Your task to perform on an android device: Search for apple airpods pro on bestbuy.com, select the first entry, and add it to the cart. Image 0: 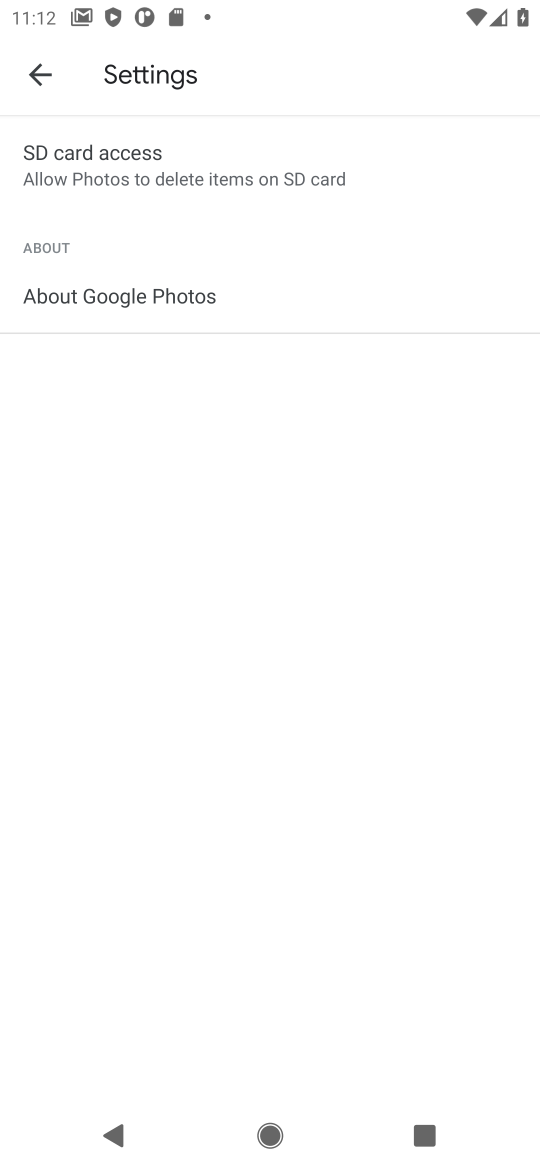
Step 0: press home button
Your task to perform on an android device: Search for apple airpods pro on bestbuy.com, select the first entry, and add it to the cart. Image 1: 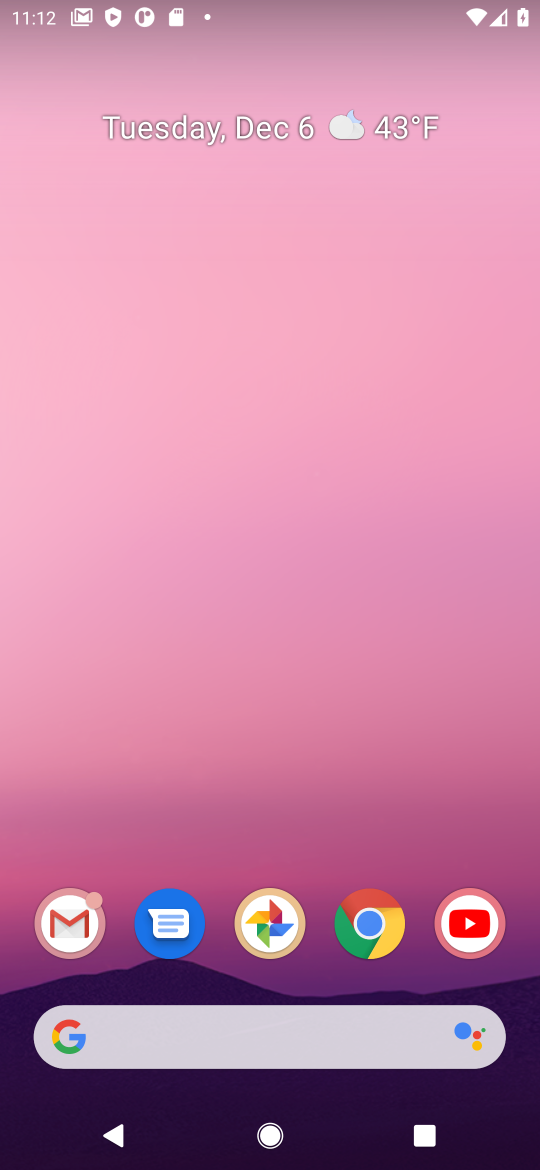
Step 1: click (366, 904)
Your task to perform on an android device: Search for apple airpods pro on bestbuy.com, select the first entry, and add it to the cart. Image 2: 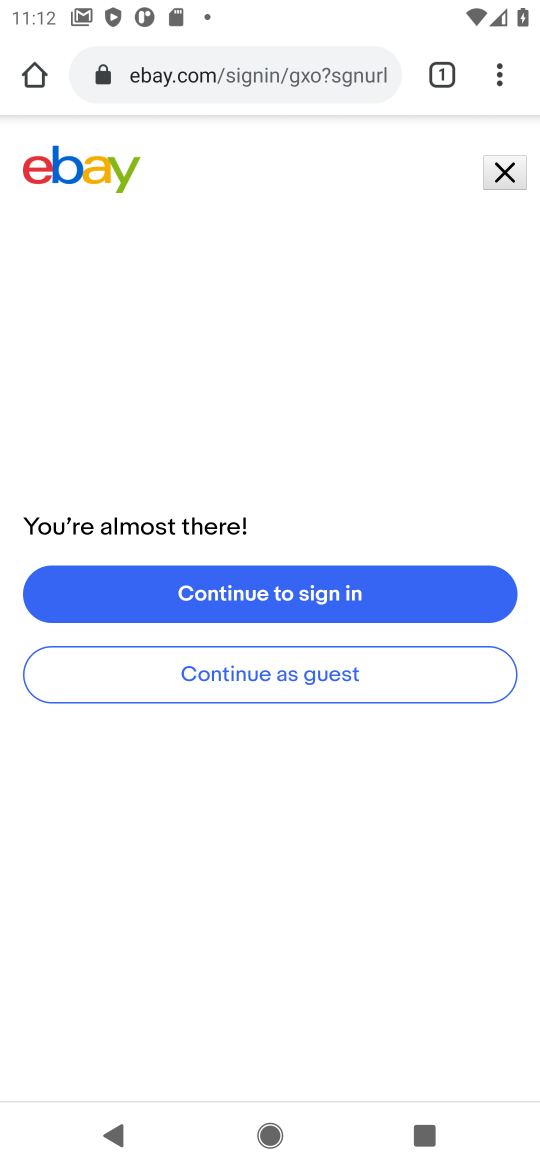
Step 2: click (230, 78)
Your task to perform on an android device: Search for apple airpods pro on bestbuy.com, select the first entry, and add it to the cart. Image 3: 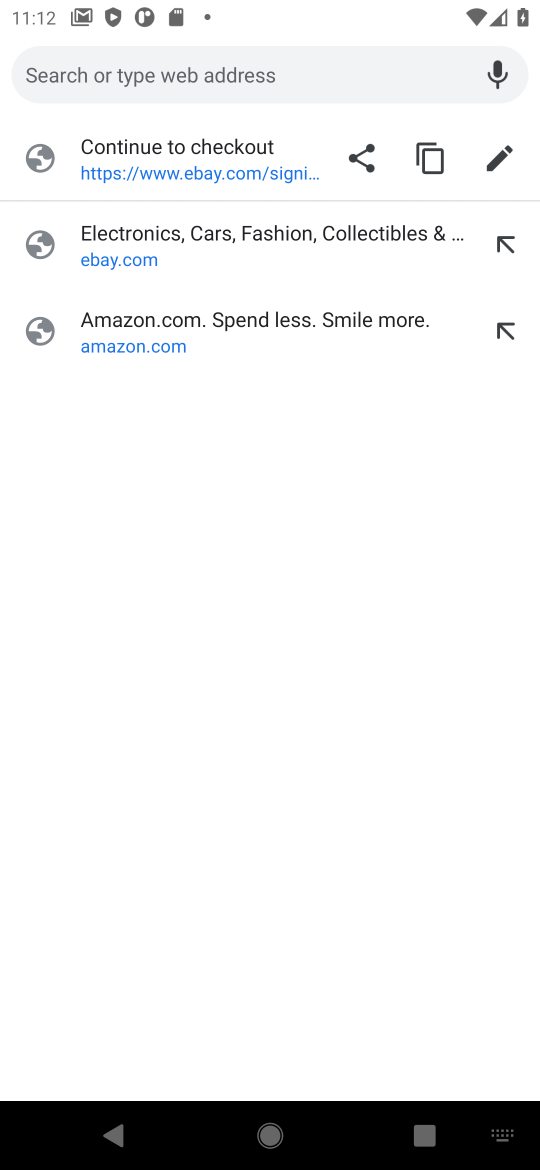
Step 3: type "BESTBUY"
Your task to perform on an android device: Search for apple airpods pro on bestbuy.com, select the first entry, and add it to the cart. Image 4: 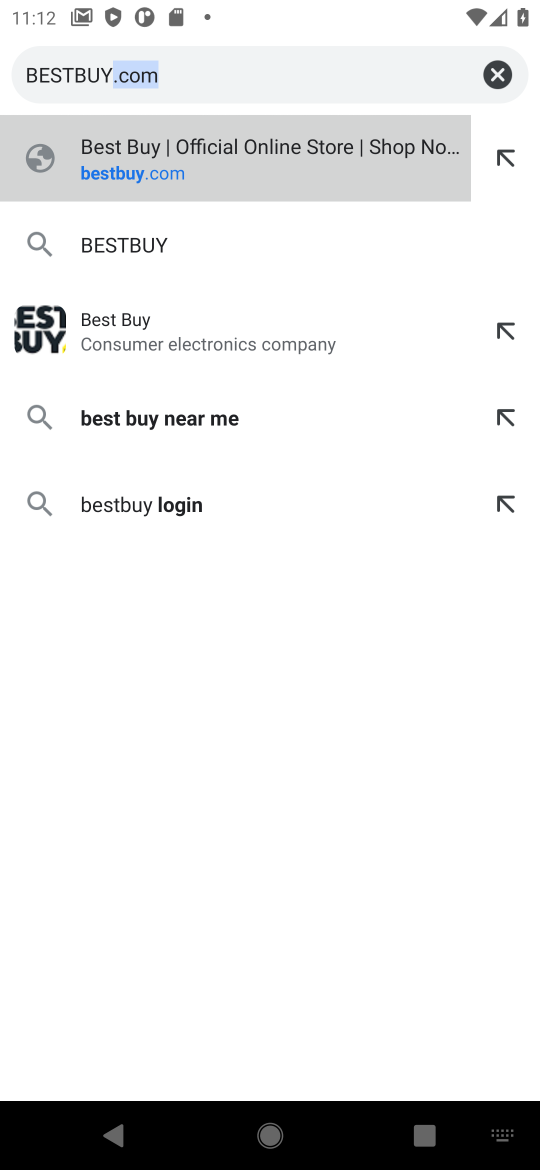
Step 4: click (276, 165)
Your task to perform on an android device: Search for apple airpods pro on bestbuy.com, select the first entry, and add it to the cart. Image 5: 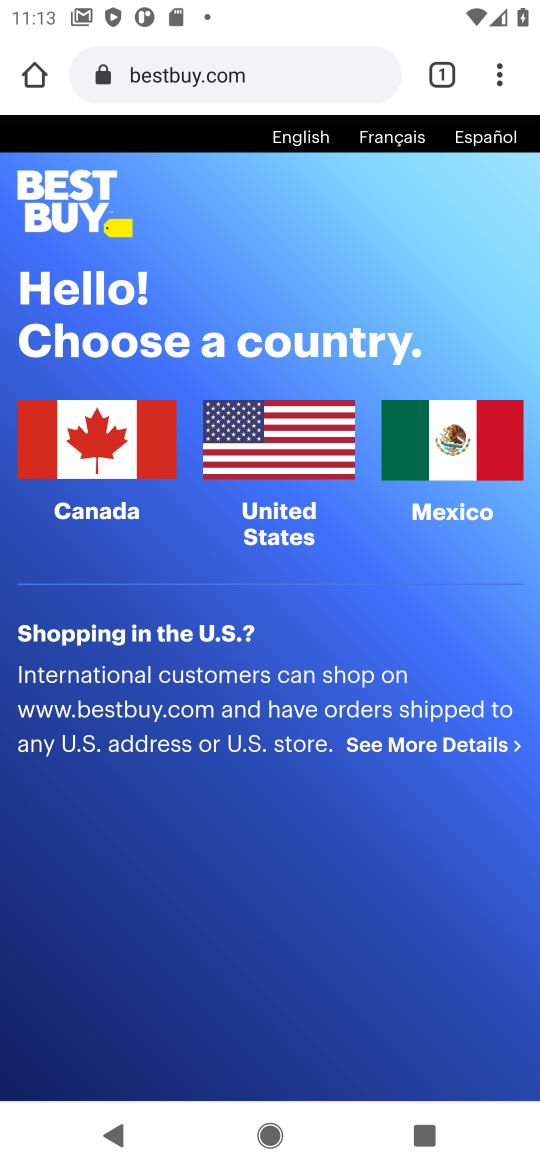
Step 5: click (269, 445)
Your task to perform on an android device: Search for apple airpods pro on bestbuy.com, select the first entry, and add it to the cart. Image 6: 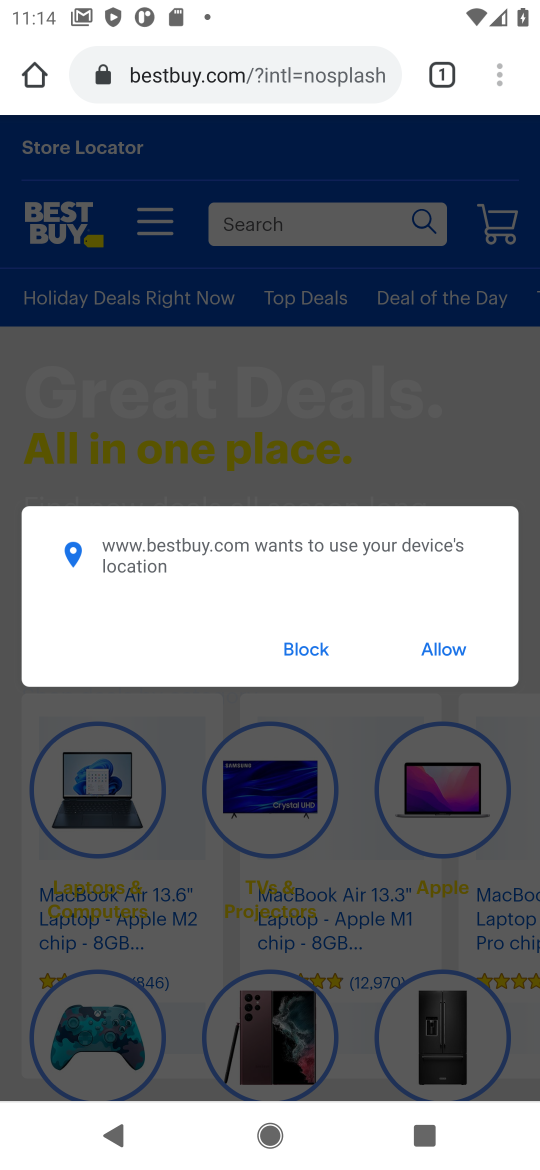
Step 6: click (301, 641)
Your task to perform on an android device: Search for apple airpods pro on bestbuy.com, select the first entry, and add it to the cart. Image 7: 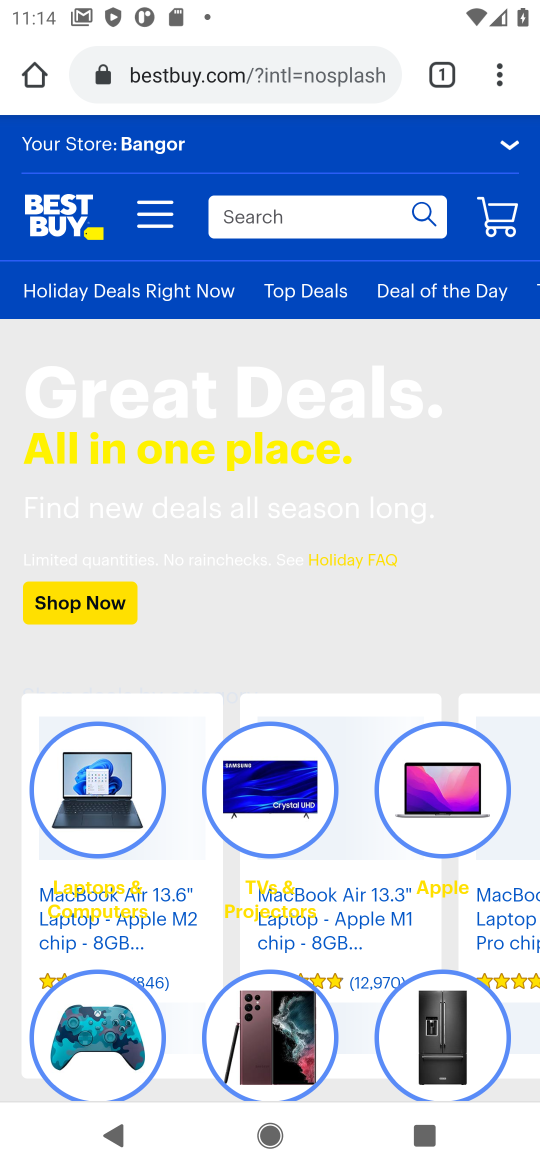
Step 7: click (309, 200)
Your task to perform on an android device: Search for apple airpods pro on bestbuy.com, select the first entry, and add it to the cart. Image 8: 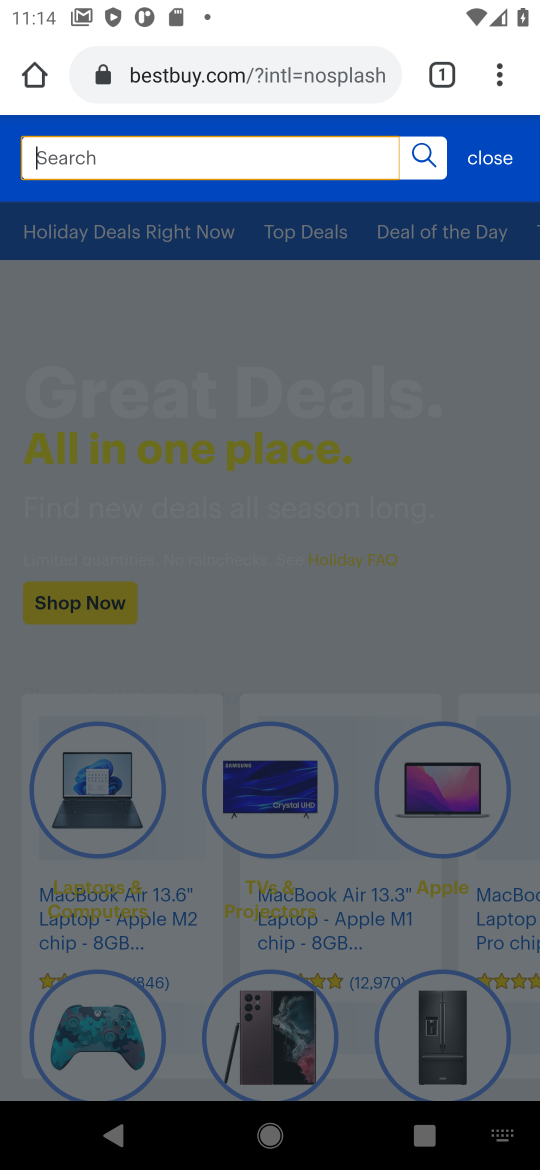
Step 8: type "APPLE AIRPODS"
Your task to perform on an android device: Search for apple airpods pro on bestbuy.com, select the first entry, and add it to the cart. Image 9: 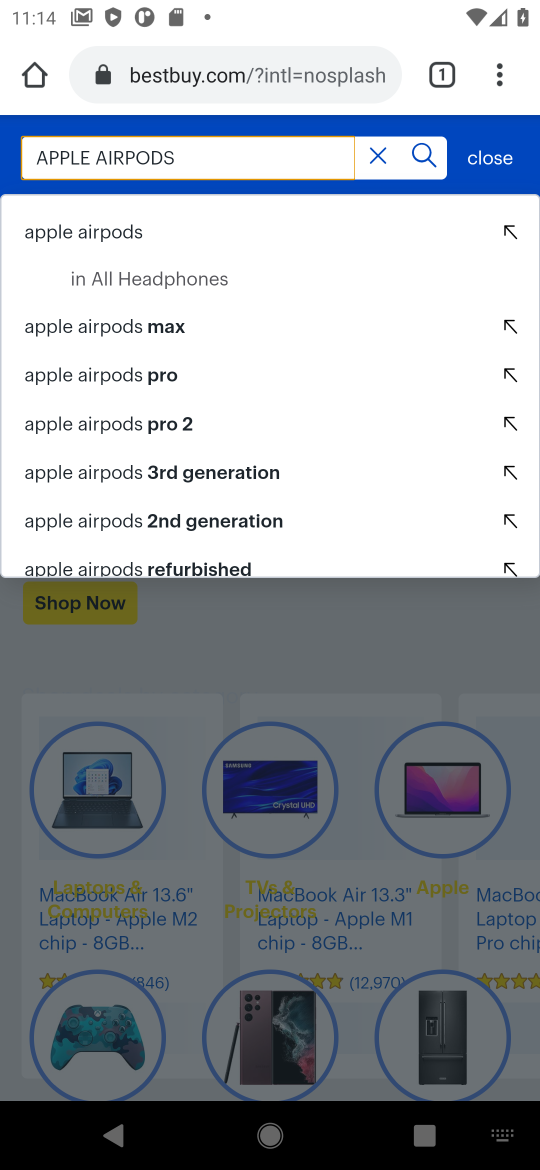
Step 9: click (75, 234)
Your task to perform on an android device: Search for apple airpods pro on bestbuy.com, select the first entry, and add it to the cart. Image 10: 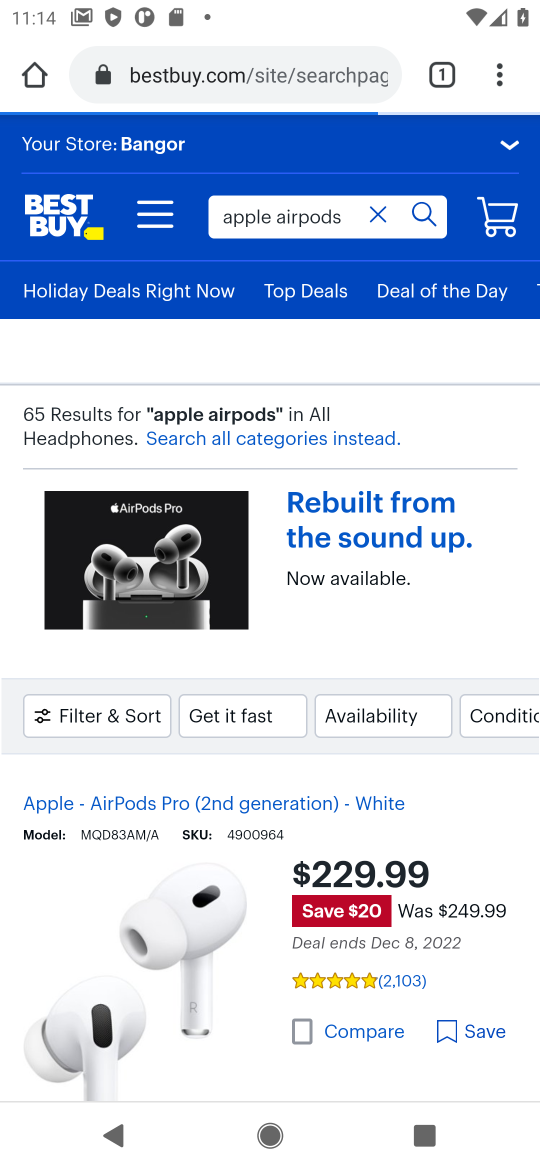
Step 10: click (109, 974)
Your task to perform on an android device: Search for apple airpods pro on bestbuy.com, select the first entry, and add it to the cart. Image 11: 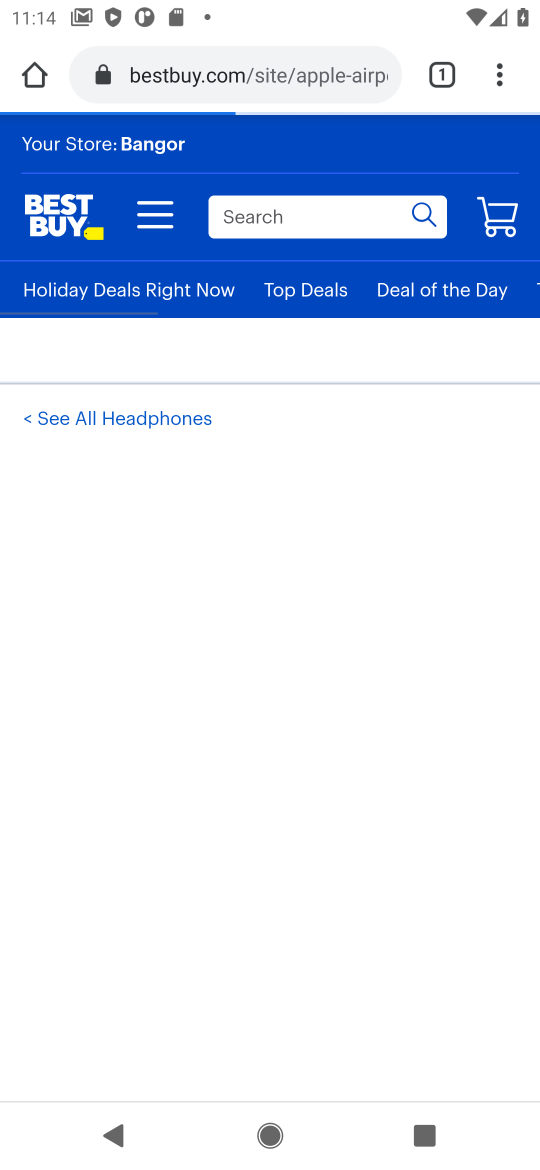
Step 11: click (398, 1071)
Your task to perform on an android device: Search for apple airpods pro on bestbuy.com, select the first entry, and add it to the cart. Image 12: 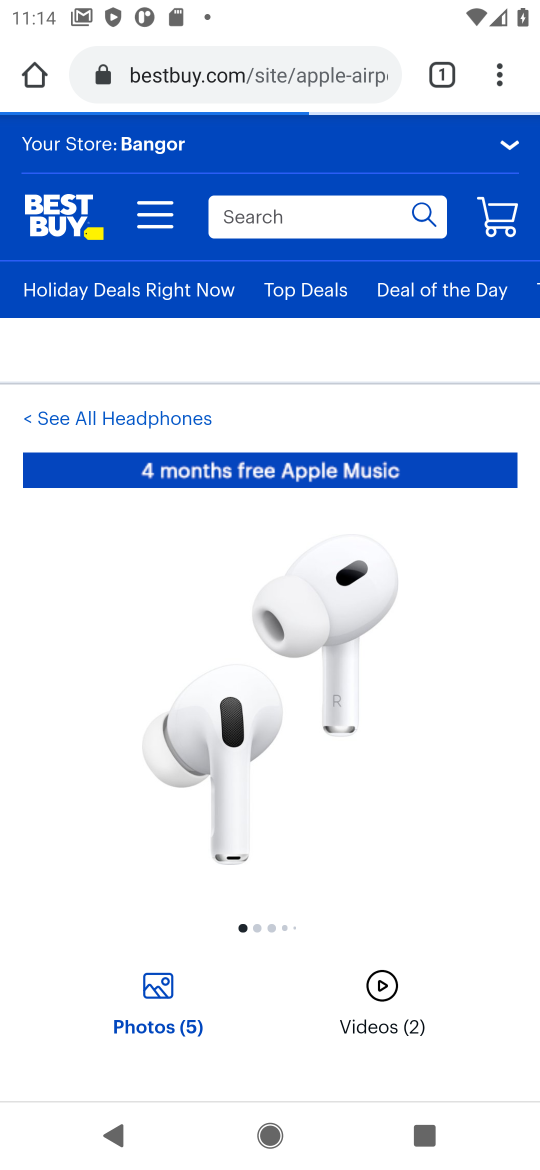
Step 12: drag from (271, 949) to (278, 214)
Your task to perform on an android device: Search for apple airpods pro on bestbuy.com, select the first entry, and add it to the cart. Image 13: 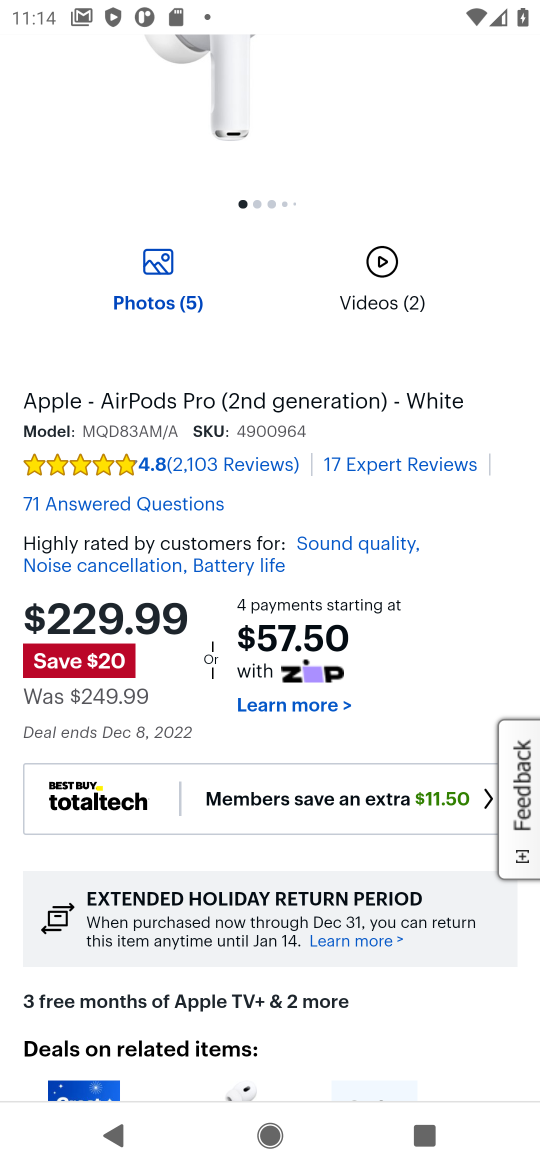
Step 13: drag from (292, 983) to (282, 271)
Your task to perform on an android device: Search for apple airpods pro on bestbuy.com, select the first entry, and add it to the cart. Image 14: 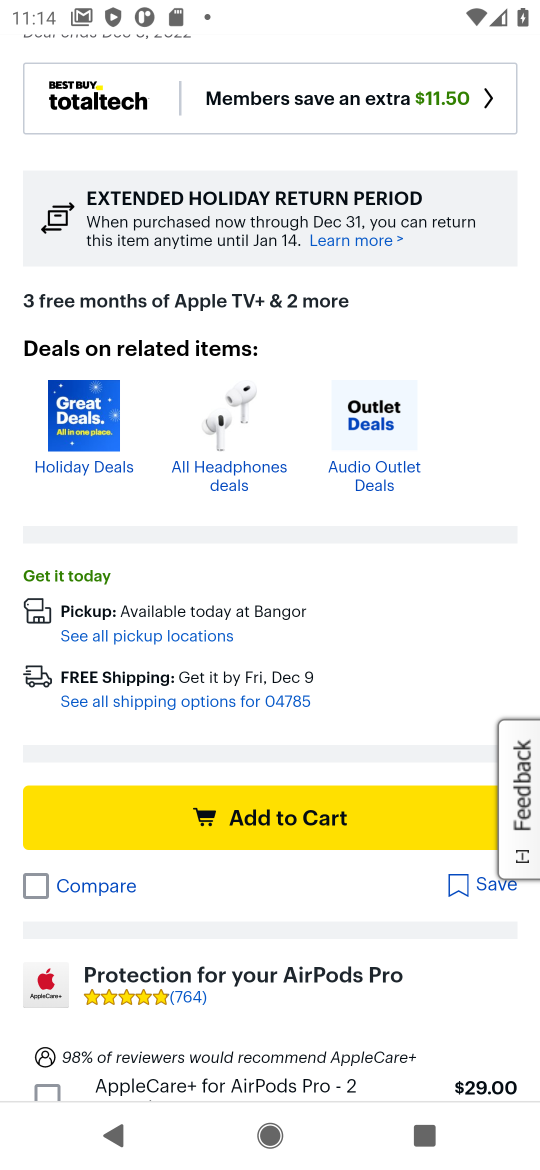
Step 14: click (271, 806)
Your task to perform on an android device: Search for apple airpods pro on bestbuy.com, select the first entry, and add it to the cart. Image 15: 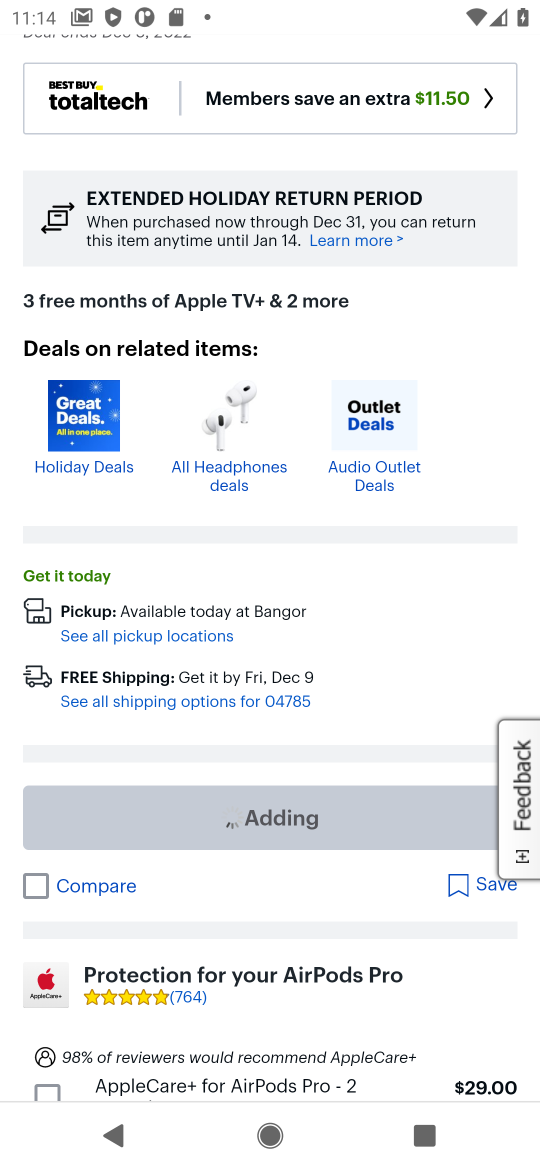
Step 15: task complete